Your task to perform on an android device: turn pop-ups on in chrome Image 0: 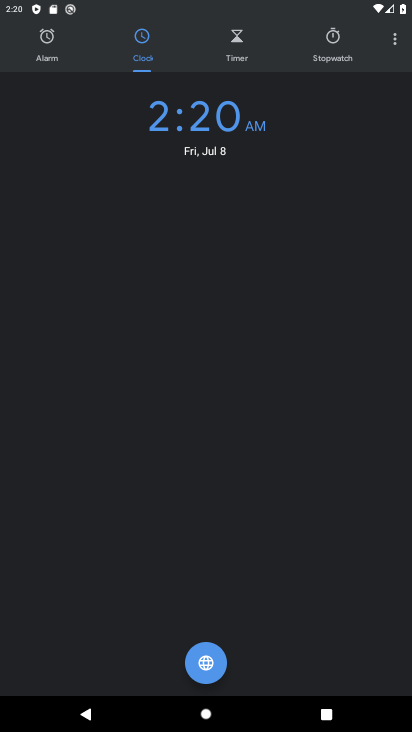
Step 0: press home button
Your task to perform on an android device: turn pop-ups on in chrome Image 1: 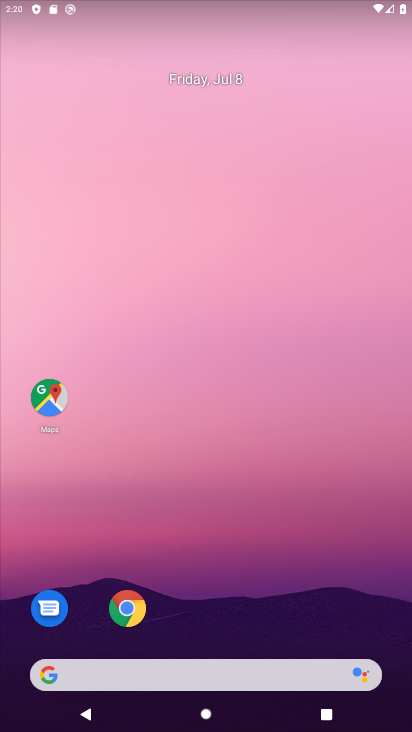
Step 1: drag from (156, 655) to (268, 116)
Your task to perform on an android device: turn pop-ups on in chrome Image 2: 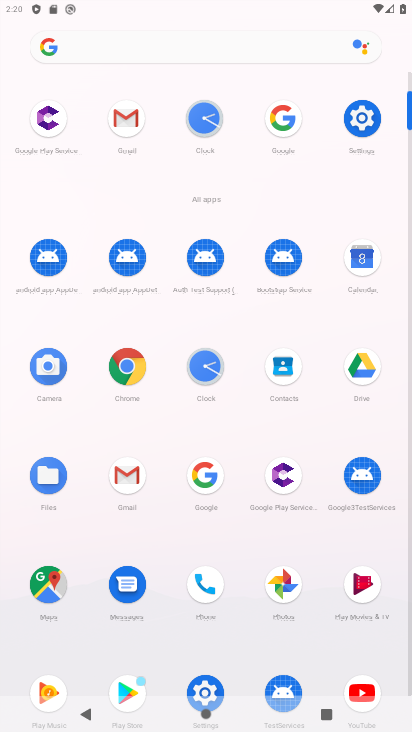
Step 2: click (138, 371)
Your task to perform on an android device: turn pop-ups on in chrome Image 3: 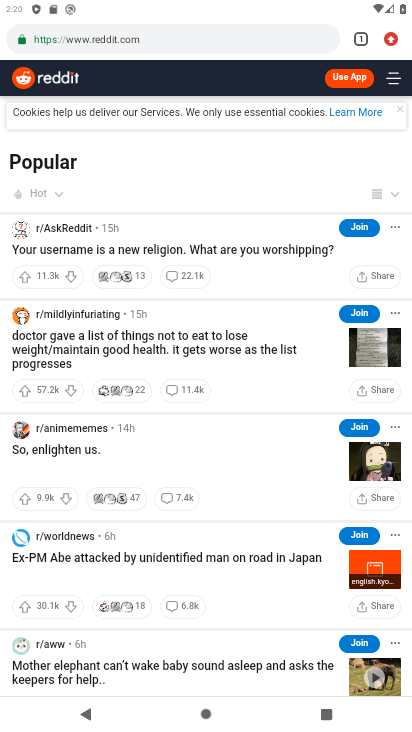
Step 3: drag from (390, 24) to (285, 504)
Your task to perform on an android device: turn pop-ups on in chrome Image 4: 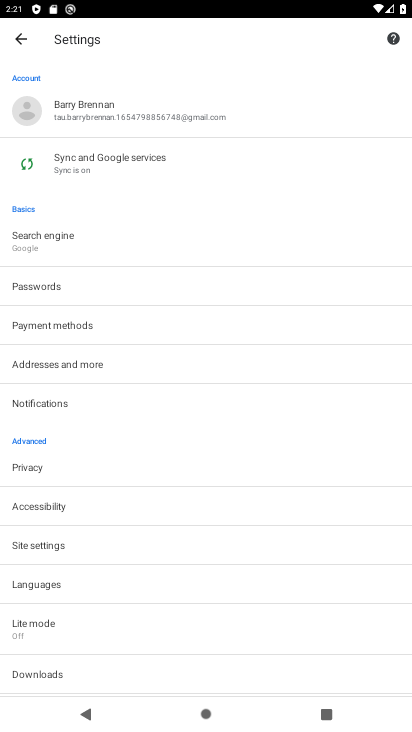
Step 4: drag from (64, 627) to (124, 525)
Your task to perform on an android device: turn pop-ups on in chrome Image 5: 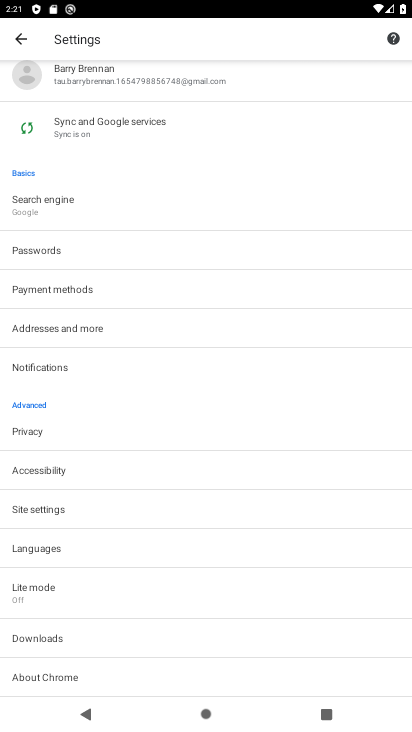
Step 5: click (75, 513)
Your task to perform on an android device: turn pop-ups on in chrome Image 6: 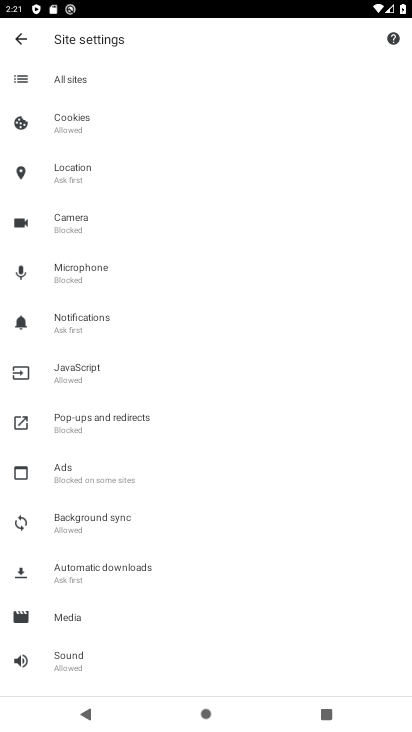
Step 6: click (124, 431)
Your task to perform on an android device: turn pop-ups on in chrome Image 7: 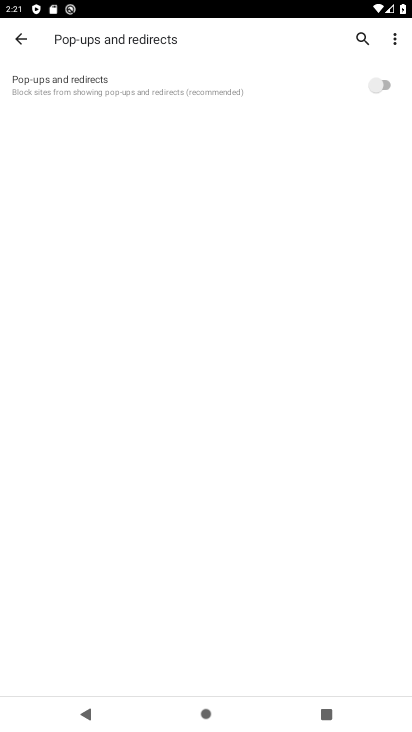
Step 7: click (401, 72)
Your task to perform on an android device: turn pop-ups on in chrome Image 8: 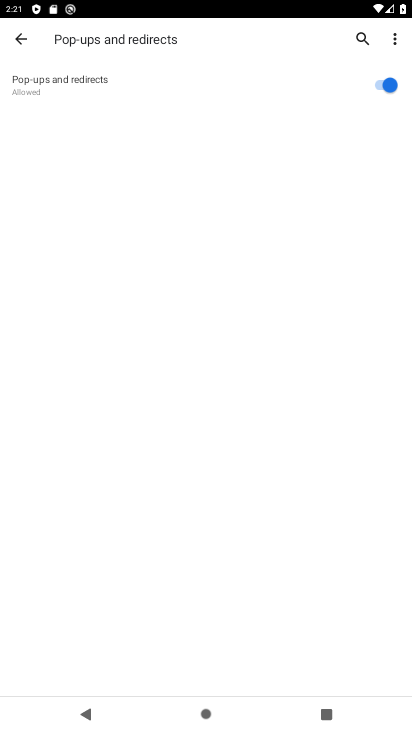
Step 8: task complete